Your task to perform on an android device: change the clock style Image 0: 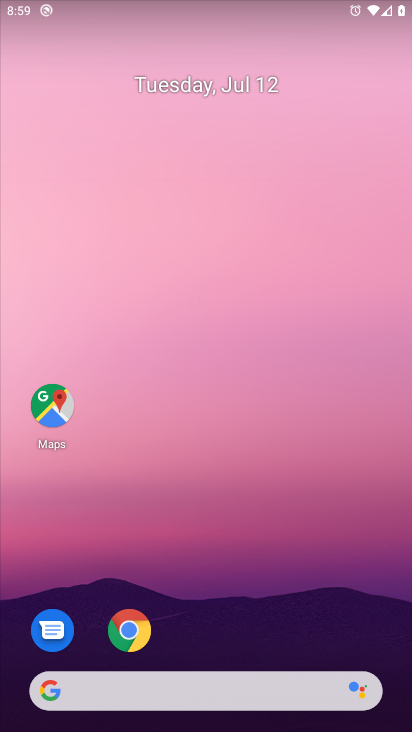
Step 0: press home button
Your task to perform on an android device: change the clock style Image 1: 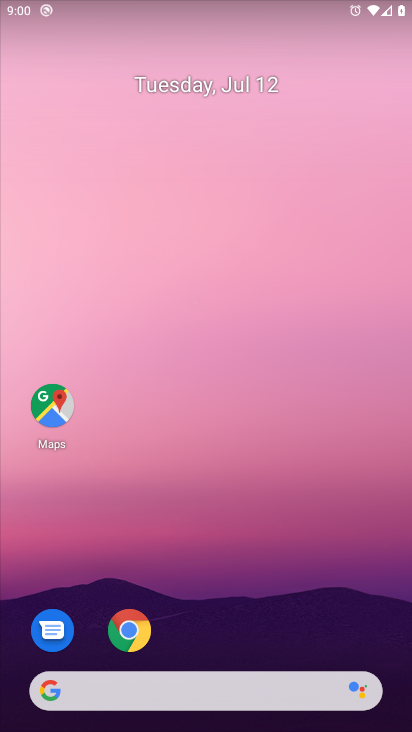
Step 1: drag from (230, 630) to (230, 263)
Your task to perform on an android device: change the clock style Image 2: 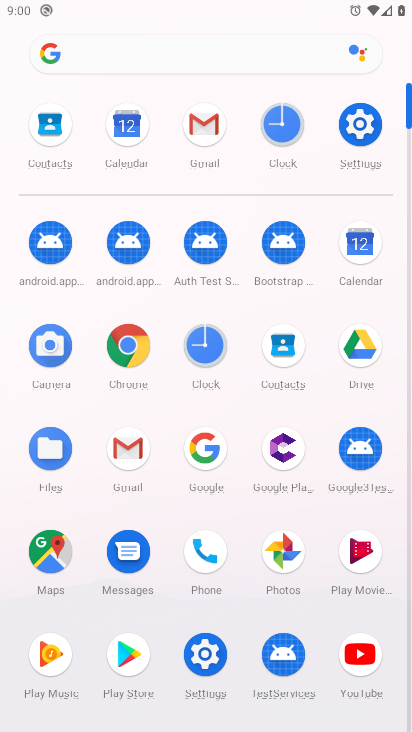
Step 2: click (277, 134)
Your task to perform on an android device: change the clock style Image 3: 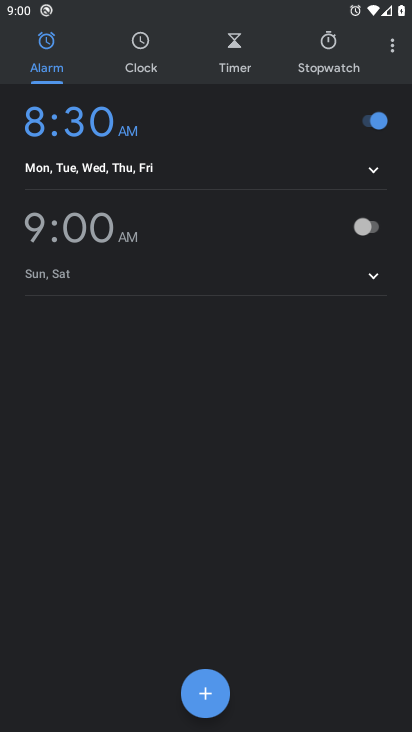
Step 3: click (396, 44)
Your task to perform on an android device: change the clock style Image 4: 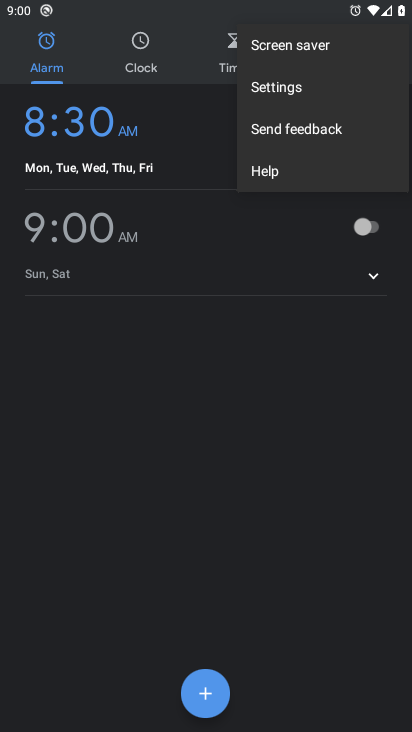
Step 4: click (269, 88)
Your task to perform on an android device: change the clock style Image 5: 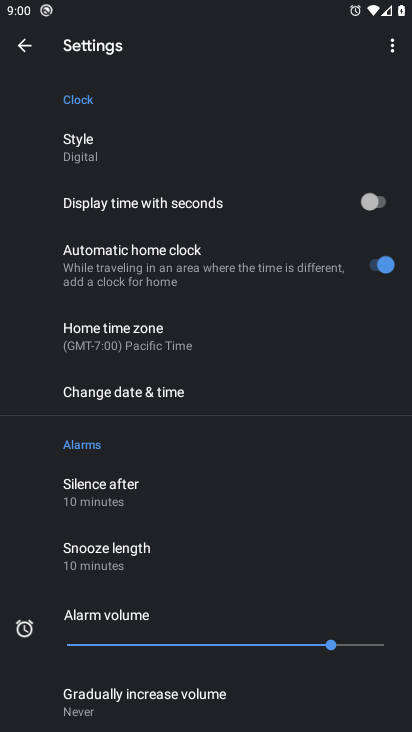
Step 5: click (88, 147)
Your task to perform on an android device: change the clock style Image 6: 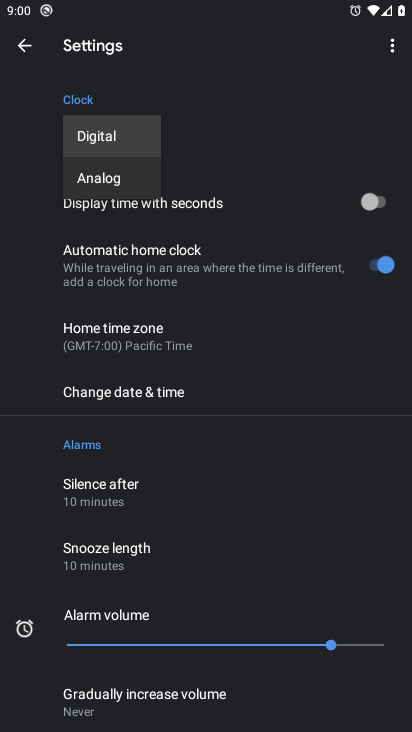
Step 6: click (96, 175)
Your task to perform on an android device: change the clock style Image 7: 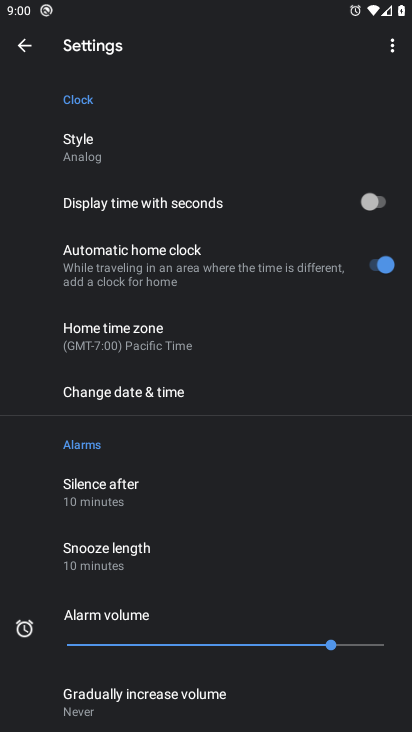
Step 7: task complete